Your task to perform on an android device: Show the shopping cart on costco. Add "acer nitro" to the cart on costco, then select checkout. Image 0: 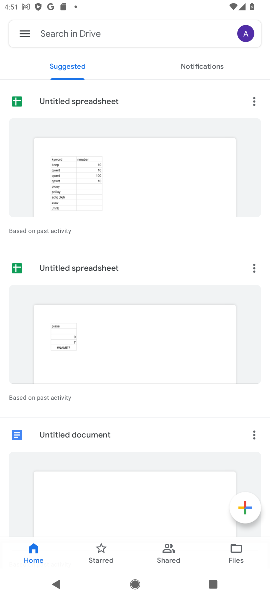
Step 0: press home button
Your task to perform on an android device: Show the shopping cart on costco. Add "acer nitro" to the cart on costco, then select checkout. Image 1: 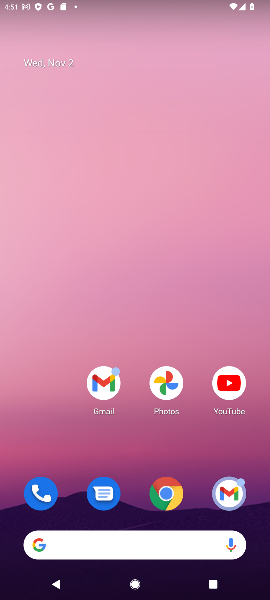
Step 1: drag from (75, 534) to (81, 157)
Your task to perform on an android device: Show the shopping cart on costco. Add "acer nitro" to the cart on costco, then select checkout. Image 2: 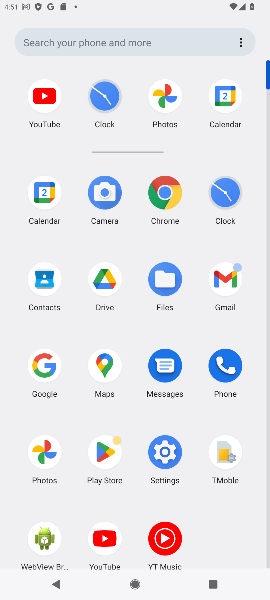
Step 2: click (38, 363)
Your task to perform on an android device: Show the shopping cart on costco. Add "acer nitro" to the cart on costco, then select checkout. Image 3: 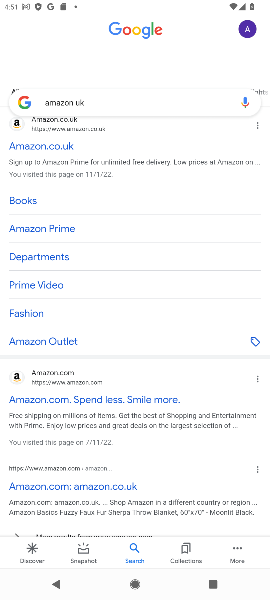
Step 3: click (93, 98)
Your task to perform on an android device: Show the shopping cart on costco. Add "acer nitro" to the cart on costco, then select checkout. Image 4: 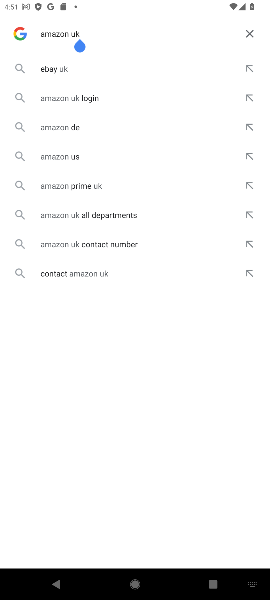
Step 4: click (243, 38)
Your task to perform on an android device: Show the shopping cart on costco. Add "acer nitro" to the cart on costco, then select checkout. Image 5: 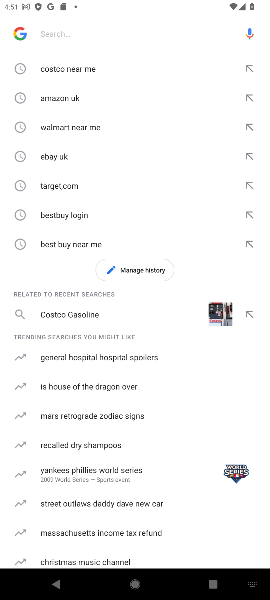
Step 5: click (51, 62)
Your task to perform on an android device: Show the shopping cart on costco. Add "acer nitro" to the cart on costco, then select checkout. Image 6: 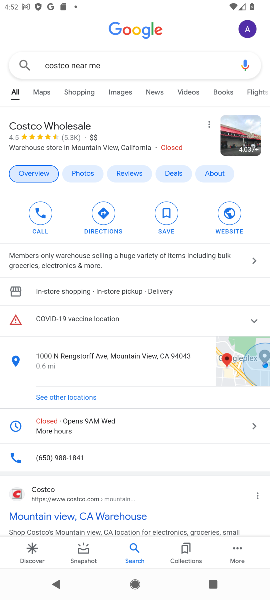
Step 6: click (18, 492)
Your task to perform on an android device: Show the shopping cart on costco. Add "acer nitro" to the cart on costco, then select checkout. Image 7: 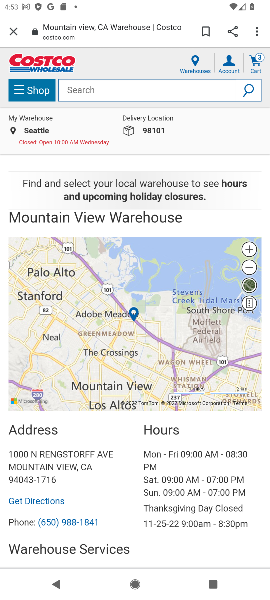
Step 7: click (71, 82)
Your task to perform on an android device: Show the shopping cart on costco. Add "acer nitro" to the cart on costco, then select checkout. Image 8: 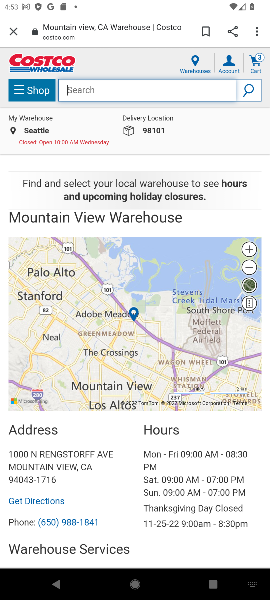
Step 8: type "acer nitro "
Your task to perform on an android device: Show the shopping cart on costco. Add "acer nitro" to the cart on costco, then select checkout. Image 9: 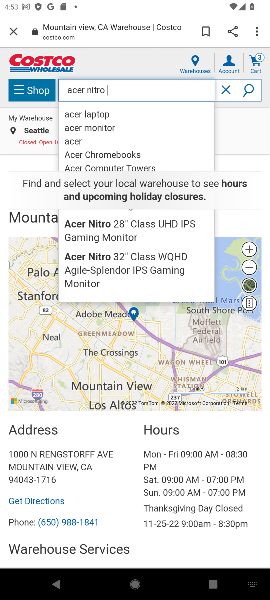
Step 9: click (96, 115)
Your task to perform on an android device: Show the shopping cart on costco. Add "acer nitro" to the cart on costco, then select checkout. Image 10: 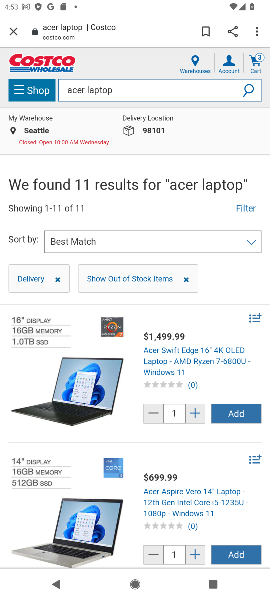
Step 10: click (242, 405)
Your task to perform on an android device: Show the shopping cart on costco. Add "acer nitro" to the cart on costco, then select checkout. Image 11: 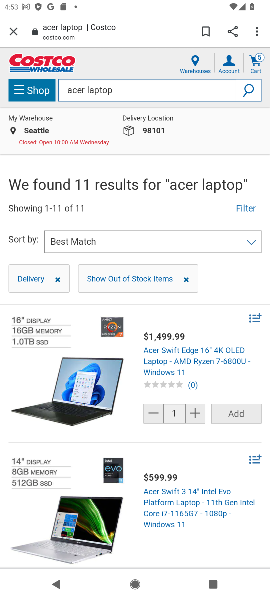
Step 11: task complete